Your task to perform on an android device: turn on the 12-hour format for clock Image 0: 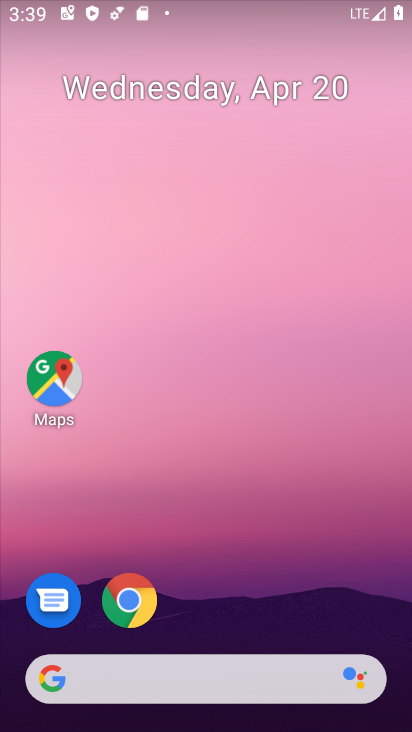
Step 0: drag from (279, 588) to (258, 132)
Your task to perform on an android device: turn on the 12-hour format for clock Image 1: 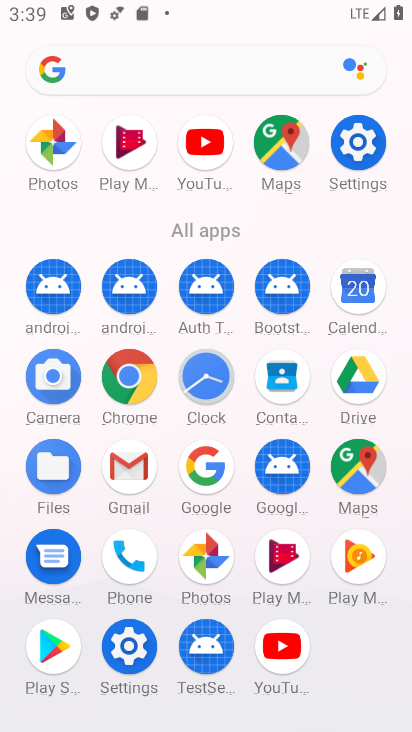
Step 1: click (205, 372)
Your task to perform on an android device: turn on the 12-hour format for clock Image 2: 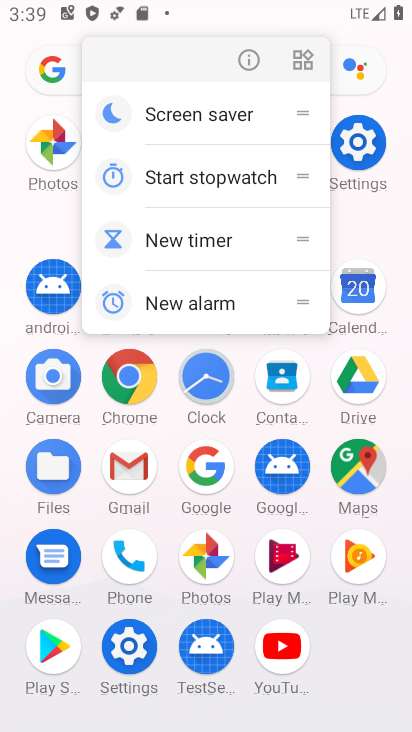
Step 2: click (199, 396)
Your task to perform on an android device: turn on the 12-hour format for clock Image 3: 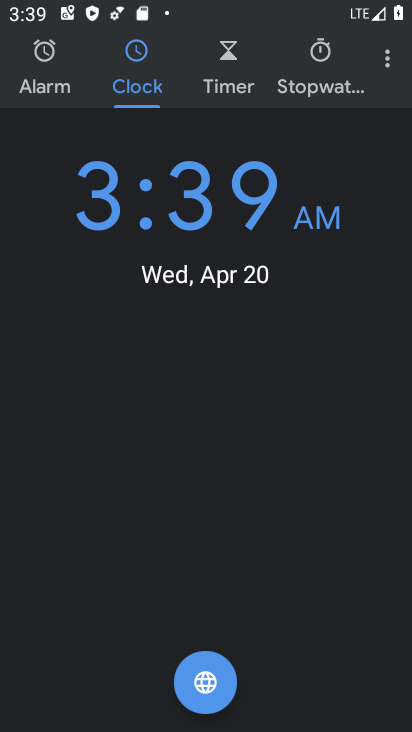
Step 3: click (387, 61)
Your task to perform on an android device: turn on the 12-hour format for clock Image 4: 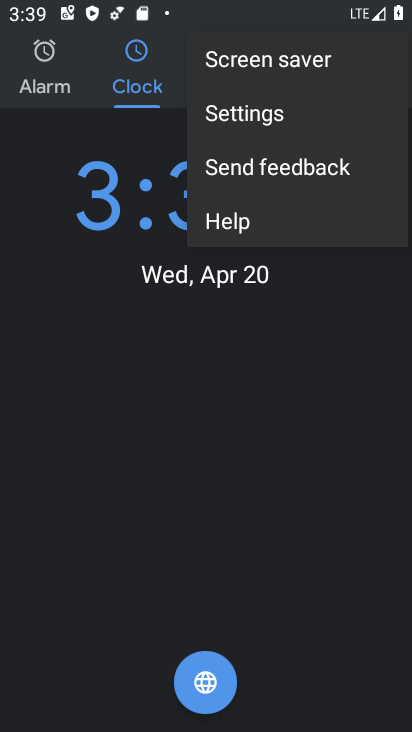
Step 4: click (266, 107)
Your task to perform on an android device: turn on the 12-hour format for clock Image 5: 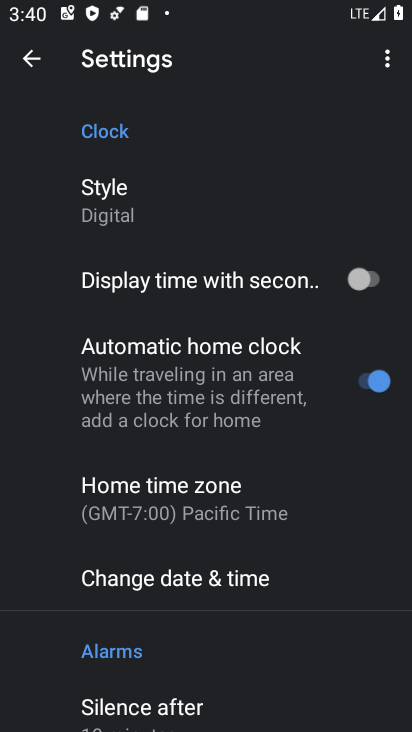
Step 5: click (216, 580)
Your task to perform on an android device: turn on the 12-hour format for clock Image 6: 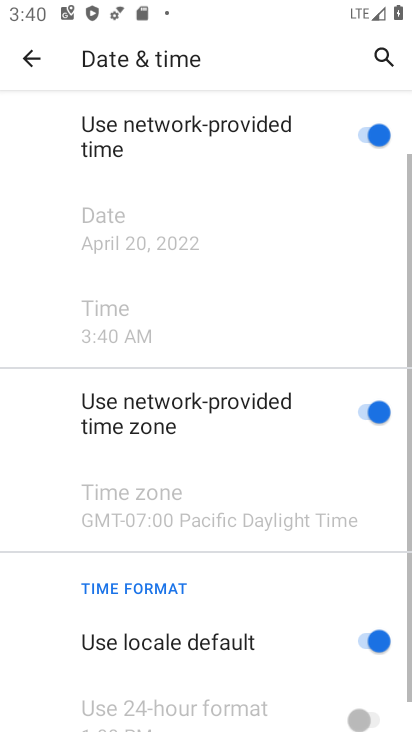
Step 6: task complete